Your task to perform on an android device: turn off translation in the chrome app Image 0: 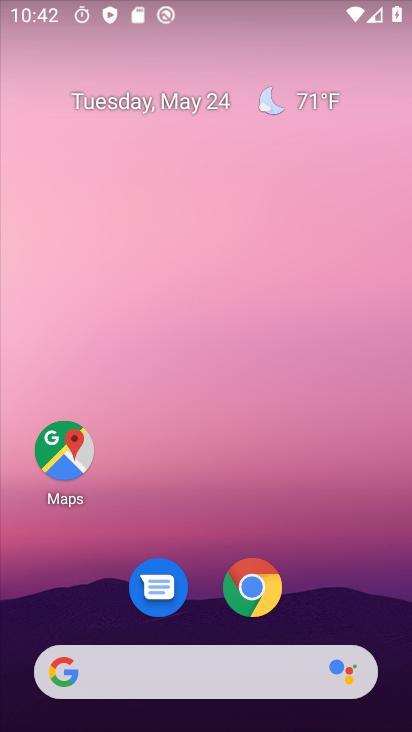
Step 0: drag from (255, 530) to (177, 233)
Your task to perform on an android device: turn off translation in the chrome app Image 1: 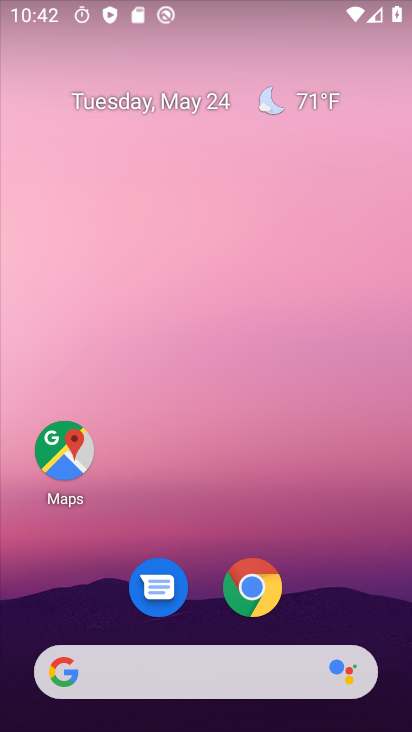
Step 1: drag from (312, 642) to (273, 227)
Your task to perform on an android device: turn off translation in the chrome app Image 2: 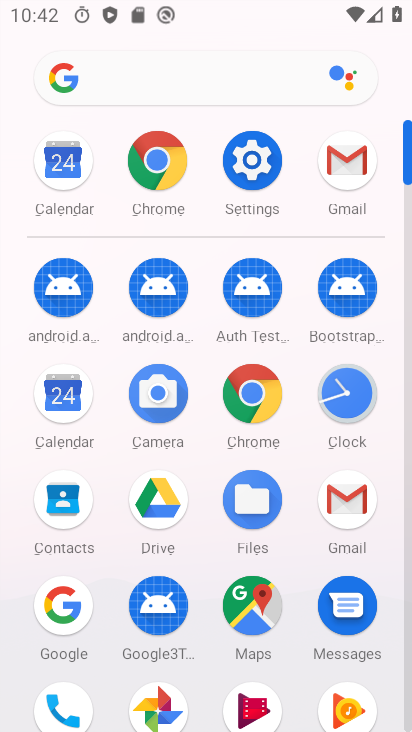
Step 2: click (160, 167)
Your task to perform on an android device: turn off translation in the chrome app Image 3: 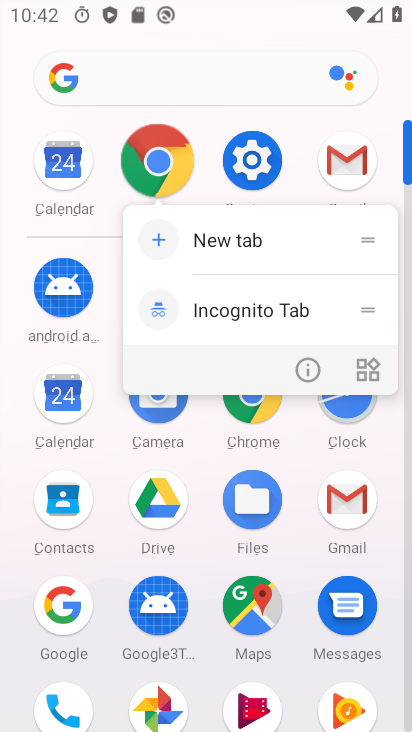
Step 3: click (160, 167)
Your task to perform on an android device: turn off translation in the chrome app Image 4: 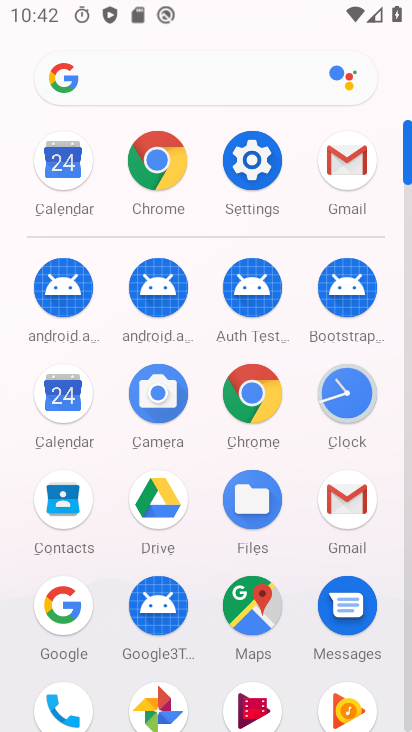
Step 4: click (160, 167)
Your task to perform on an android device: turn off translation in the chrome app Image 5: 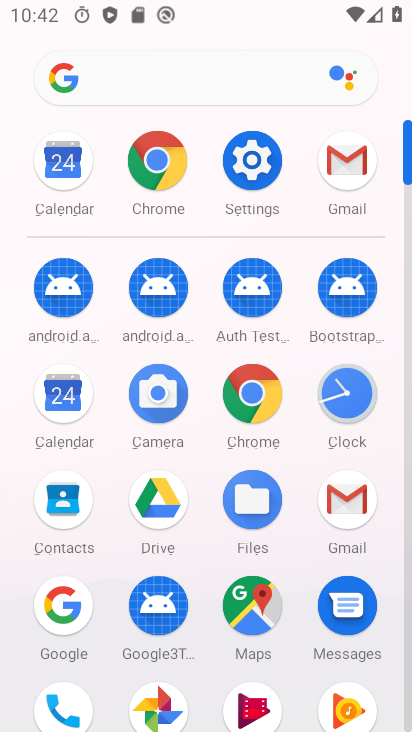
Step 5: click (162, 165)
Your task to perform on an android device: turn off translation in the chrome app Image 6: 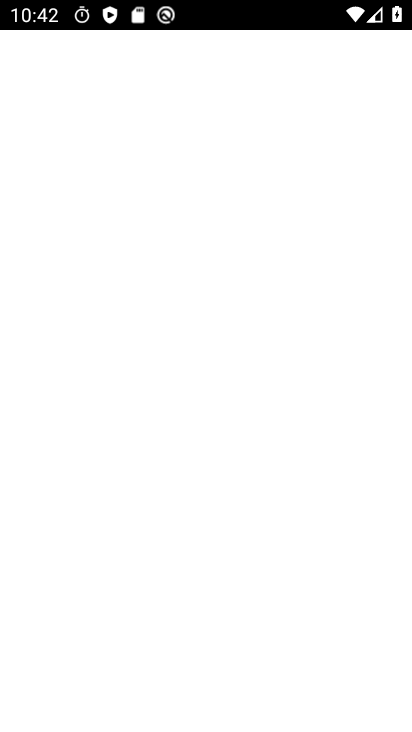
Step 6: click (170, 164)
Your task to perform on an android device: turn off translation in the chrome app Image 7: 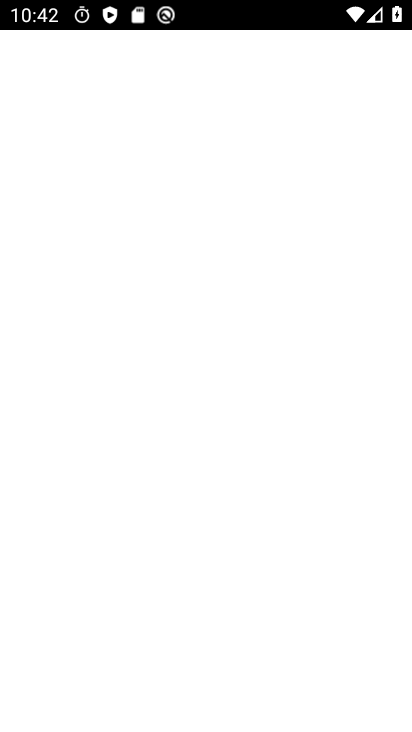
Step 7: click (170, 164)
Your task to perform on an android device: turn off translation in the chrome app Image 8: 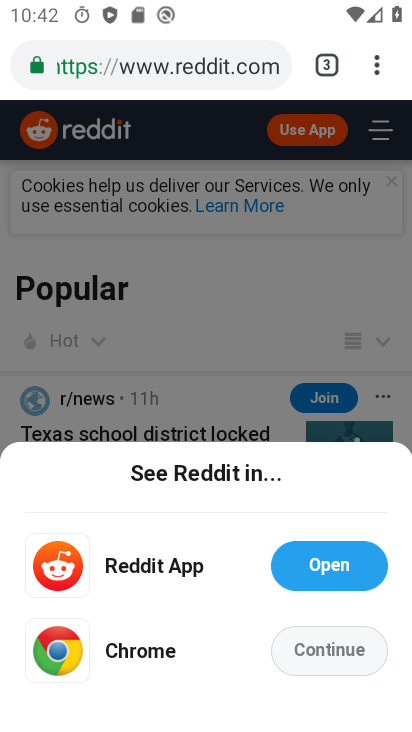
Step 8: drag from (376, 74) to (146, 634)
Your task to perform on an android device: turn off translation in the chrome app Image 9: 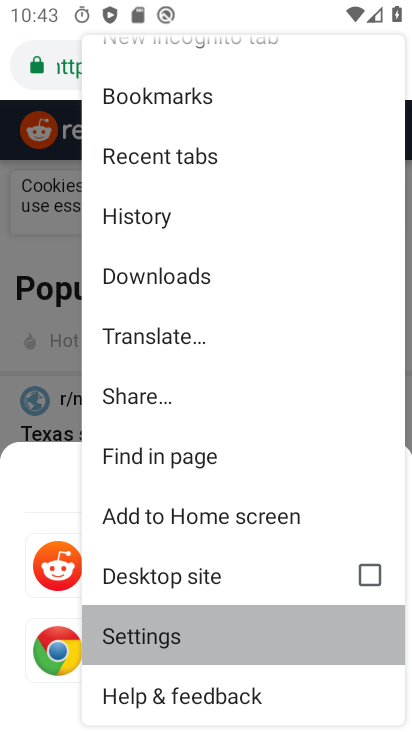
Step 9: click (148, 636)
Your task to perform on an android device: turn off translation in the chrome app Image 10: 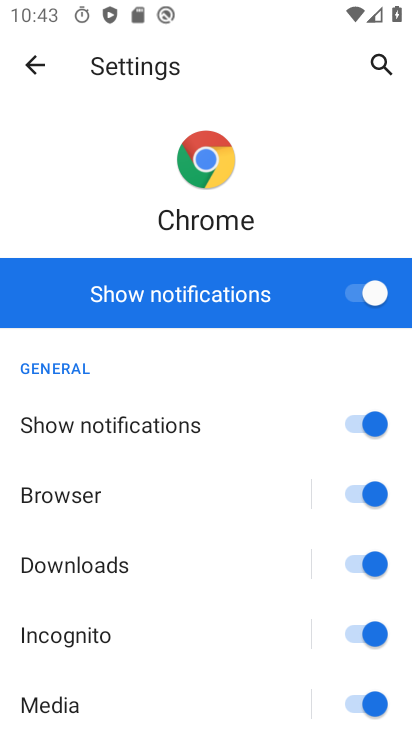
Step 10: click (27, 66)
Your task to perform on an android device: turn off translation in the chrome app Image 11: 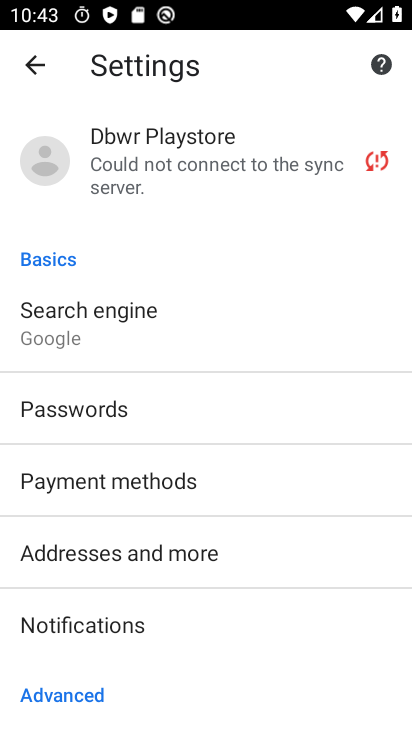
Step 11: drag from (115, 432) to (161, 177)
Your task to perform on an android device: turn off translation in the chrome app Image 12: 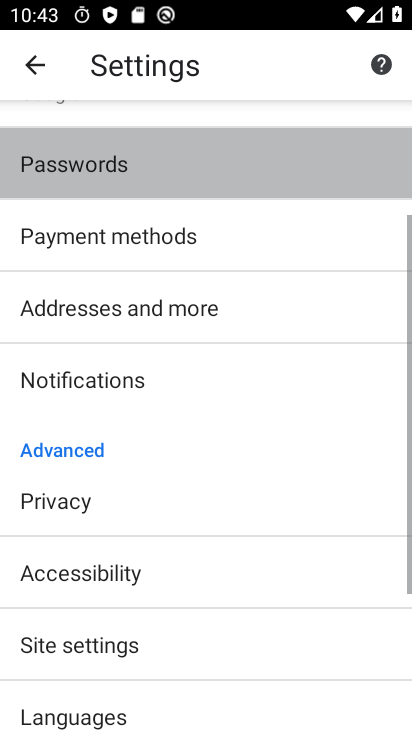
Step 12: drag from (143, 516) to (193, 193)
Your task to perform on an android device: turn off translation in the chrome app Image 13: 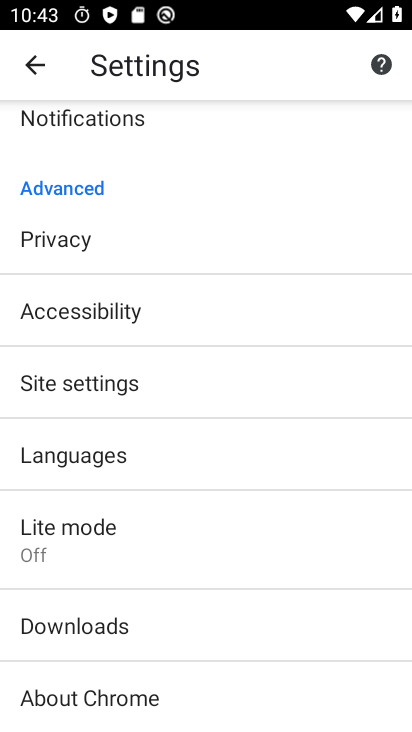
Step 13: click (73, 453)
Your task to perform on an android device: turn off translation in the chrome app Image 14: 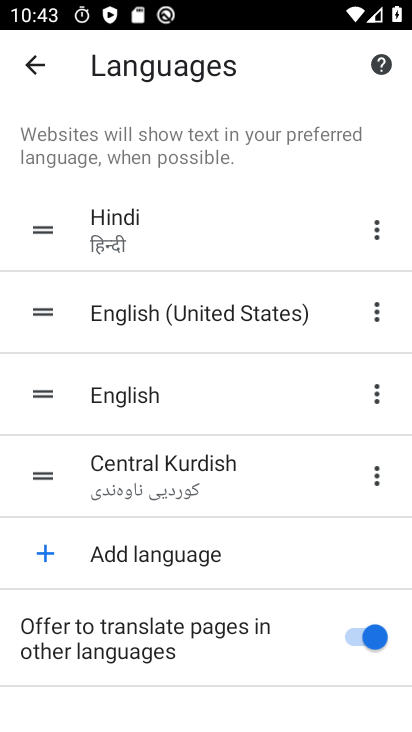
Step 14: drag from (224, 612) to (198, 351)
Your task to perform on an android device: turn off translation in the chrome app Image 15: 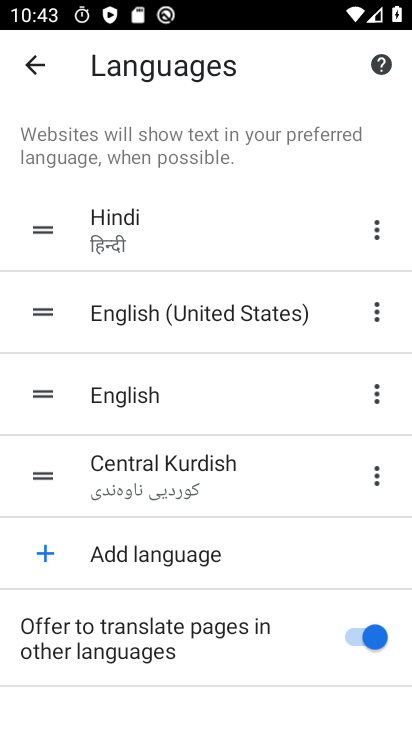
Step 15: click (369, 634)
Your task to perform on an android device: turn off translation in the chrome app Image 16: 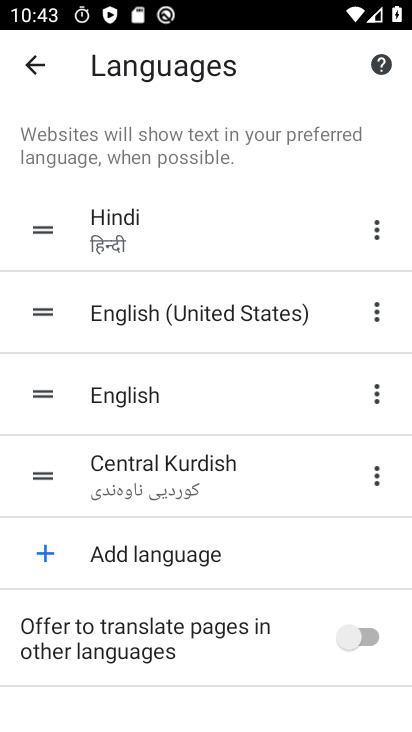
Step 16: task complete